Your task to perform on an android device: Open calendar and show me the third week of next month Image 0: 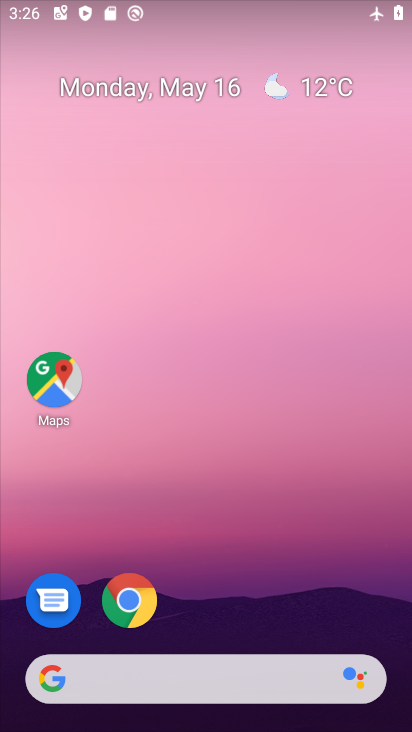
Step 0: drag from (175, 647) to (170, 29)
Your task to perform on an android device: Open calendar and show me the third week of next month Image 1: 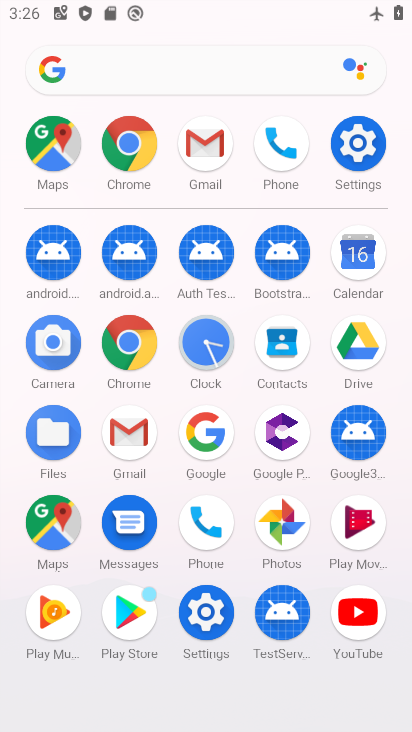
Step 1: click (354, 275)
Your task to perform on an android device: Open calendar and show me the third week of next month Image 2: 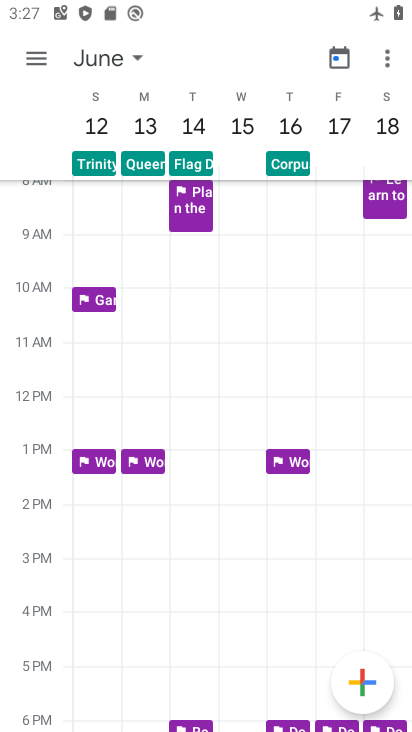
Step 2: click (36, 50)
Your task to perform on an android device: Open calendar and show me the third week of next month Image 3: 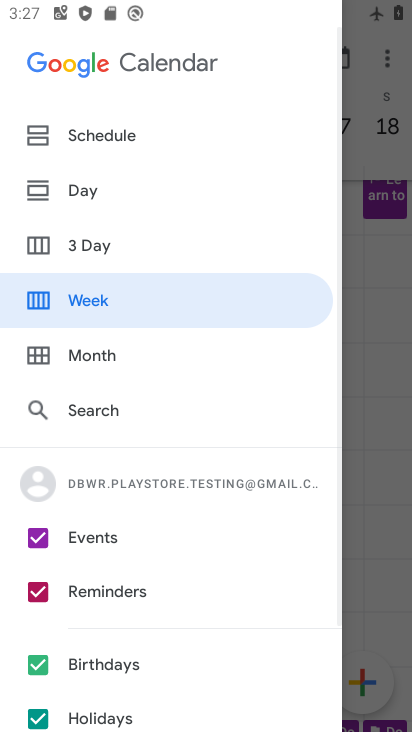
Step 3: click (118, 295)
Your task to perform on an android device: Open calendar and show me the third week of next month Image 4: 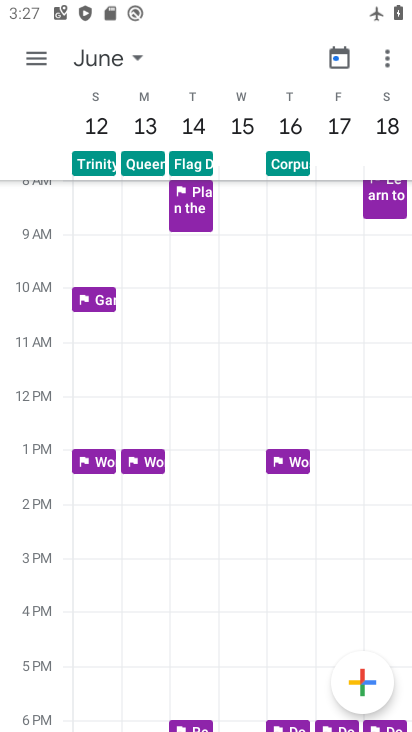
Step 4: task complete